Your task to perform on an android device: turn on bluetooth scan Image 0: 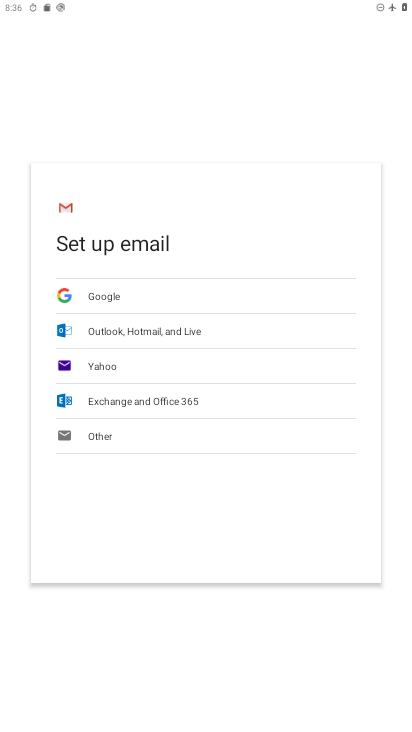
Step 0: click (405, 607)
Your task to perform on an android device: turn on bluetooth scan Image 1: 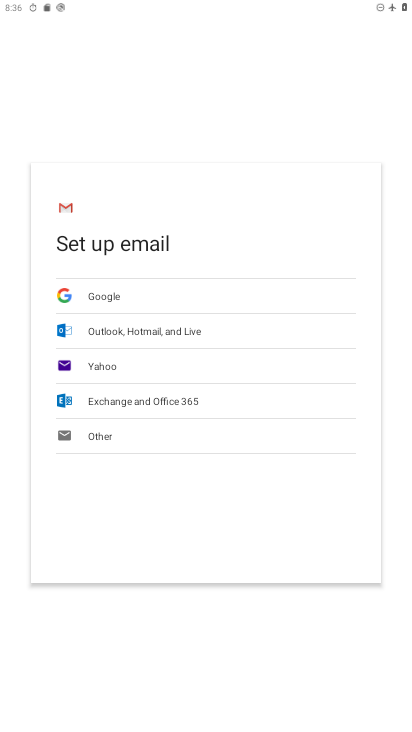
Step 1: press home button
Your task to perform on an android device: turn on bluetooth scan Image 2: 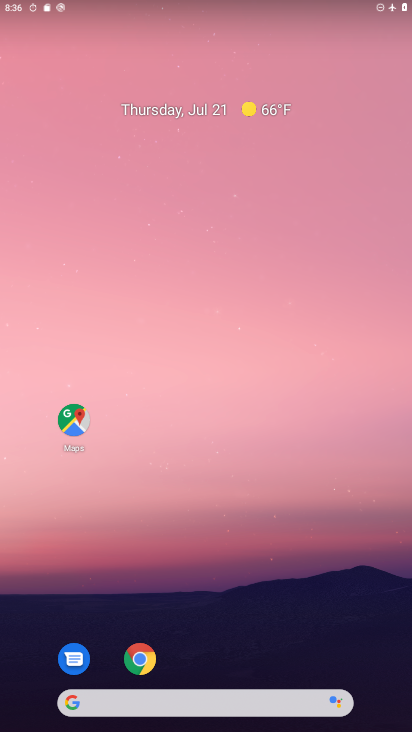
Step 2: drag from (212, 668) to (291, 132)
Your task to perform on an android device: turn on bluetooth scan Image 3: 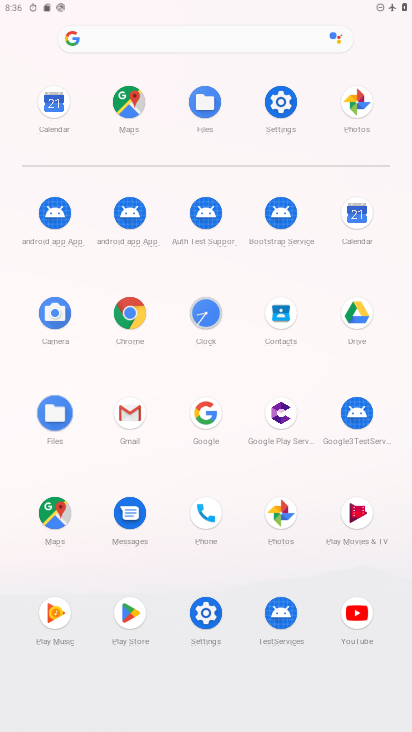
Step 3: click (279, 106)
Your task to perform on an android device: turn on bluetooth scan Image 4: 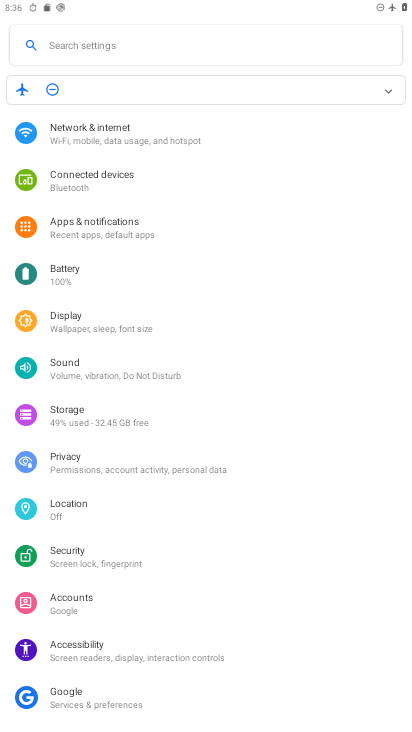
Step 4: click (101, 229)
Your task to perform on an android device: turn on bluetooth scan Image 5: 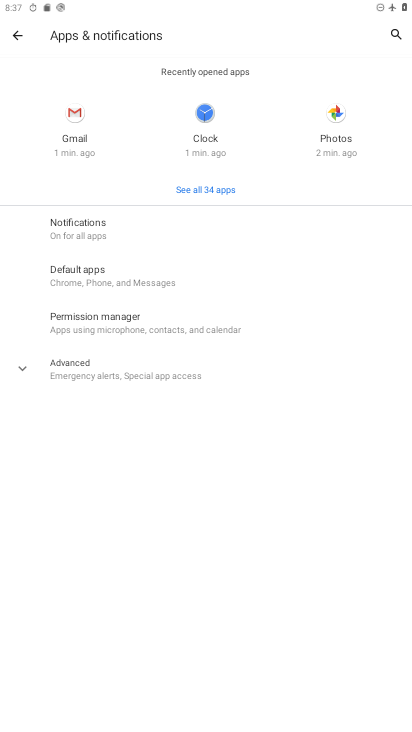
Step 5: click (12, 34)
Your task to perform on an android device: turn on bluetooth scan Image 6: 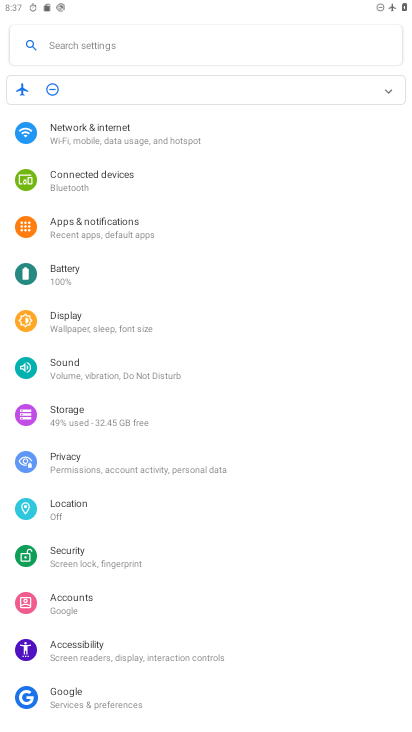
Step 6: drag from (228, 548) to (268, 208)
Your task to perform on an android device: turn on bluetooth scan Image 7: 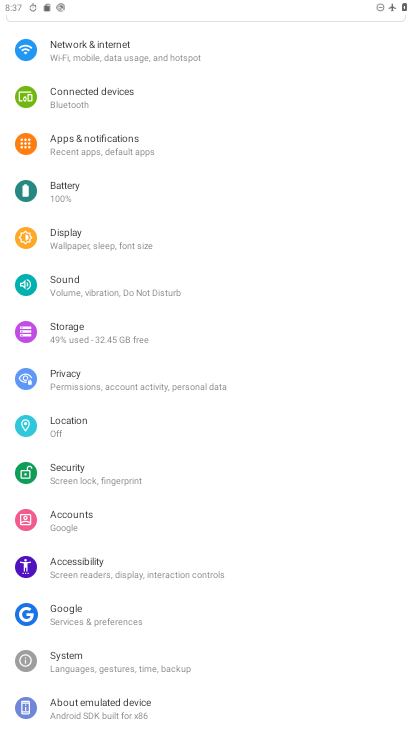
Step 7: click (117, 421)
Your task to perform on an android device: turn on bluetooth scan Image 8: 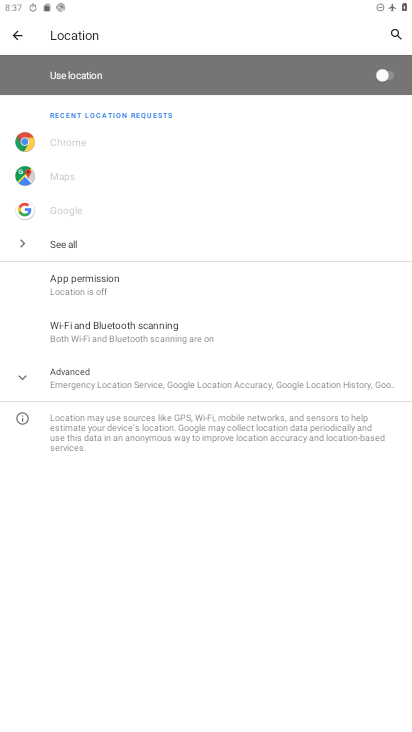
Step 8: click (356, 74)
Your task to perform on an android device: turn on bluetooth scan Image 9: 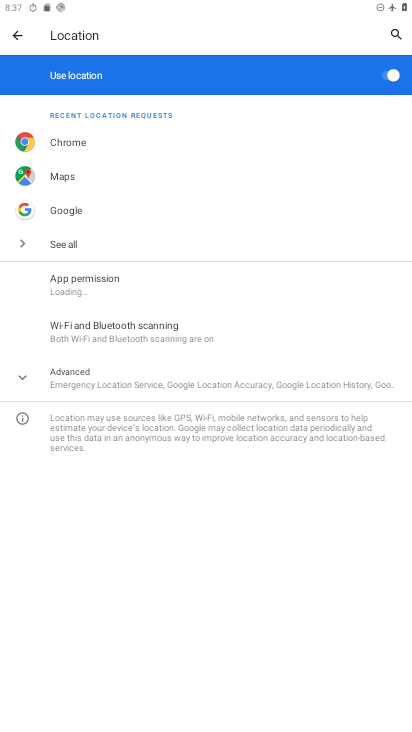
Step 9: task complete